Your task to perform on an android device: toggle translation in the chrome app Image 0: 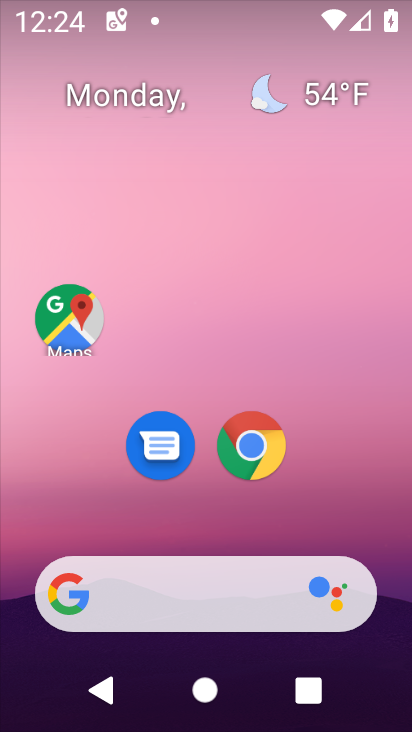
Step 0: drag from (346, 493) to (315, 80)
Your task to perform on an android device: toggle translation in the chrome app Image 1: 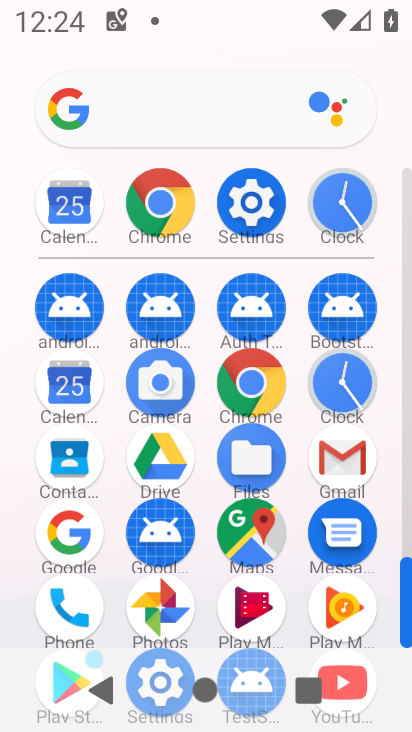
Step 1: click (257, 379)
Your task to perform on an android device: toggle translation in the chrome app Image 2: 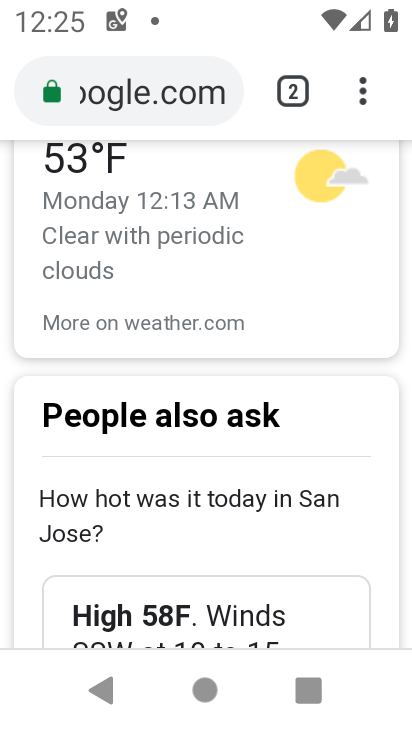
Step 2: drag from (362, 104) to (289, 490)
Your task to perform on an android device: toggle translation in the chrome app Image 3: 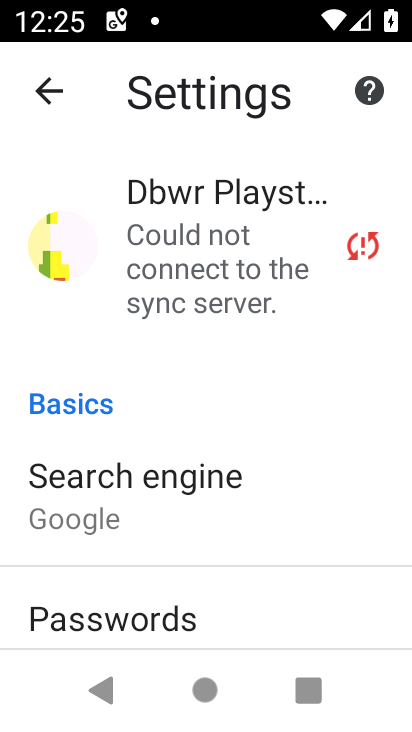
Step 3: drag from (289, 598) to (277, 236)
Your task to perform on an android device: toggle translation in the chrome app Image 4: 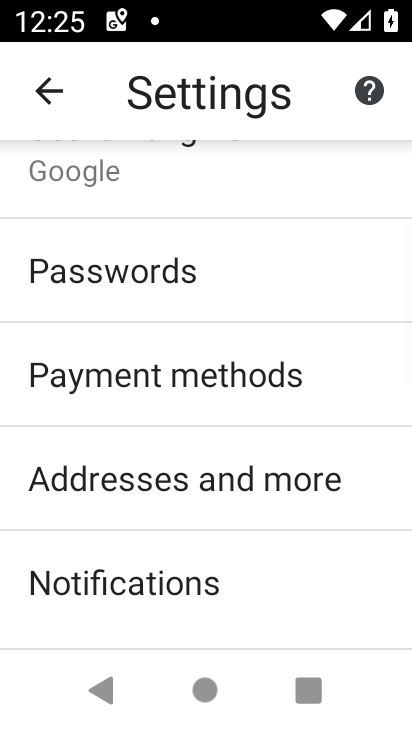
Step 4: click (300, 295)
Your task to perform on an android device: toggle translation in the chrome app Image 5: 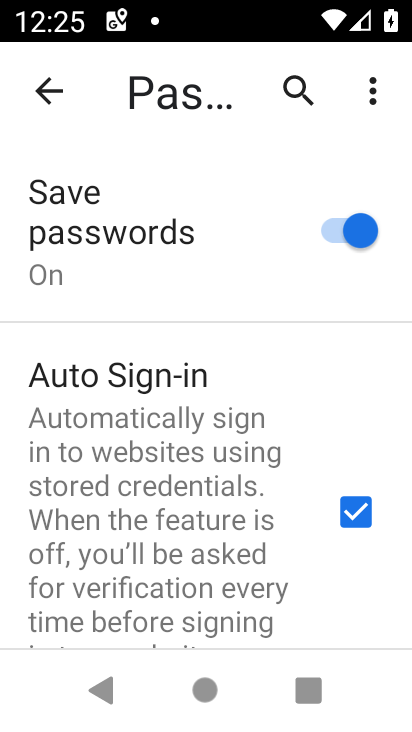
Step 5: click (55, 91)
Your task to perform on an android device: toggle translation in the chrome app Image 6: 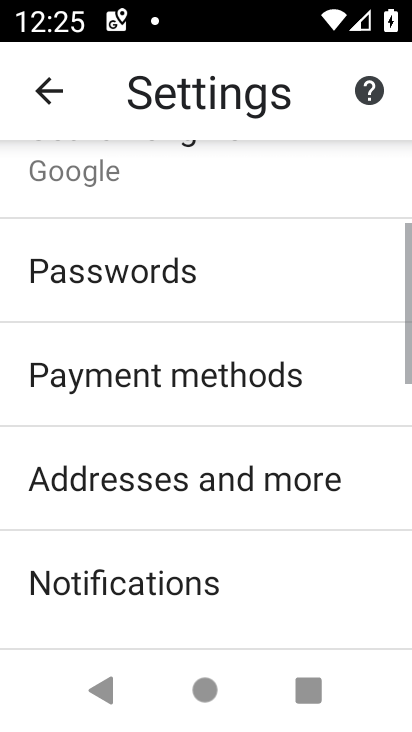
Step 6: drag from (255, 585) to (294, 251)
Your task to perform on an android device: toggle translation in the chrome app Image 7: 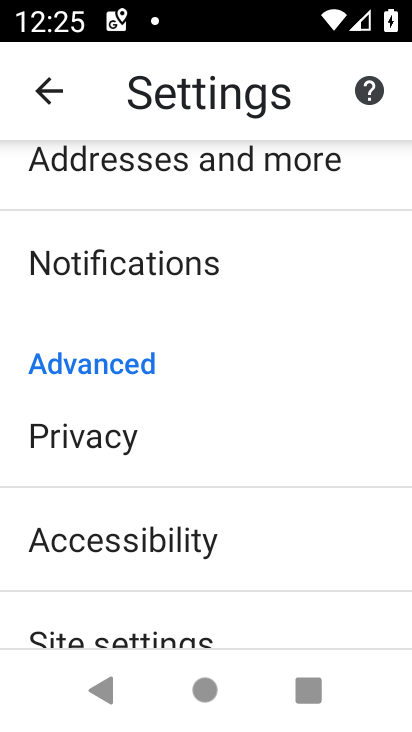
Step 7: drag from (273, 557) to (287, 282)
Your task to perform on an android device: toggle translation in the chrome app Image 8: 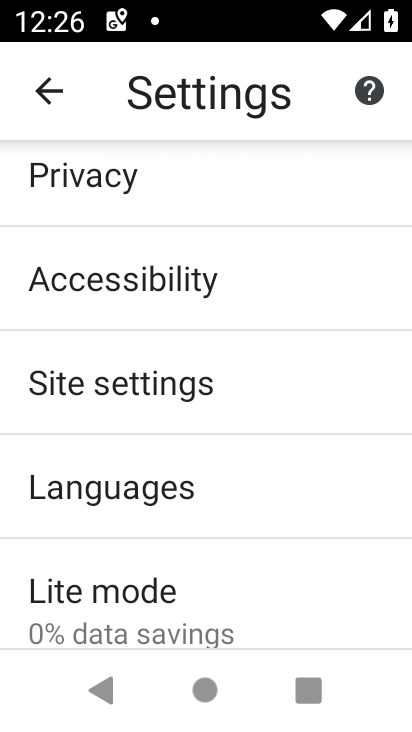
Step 8: click (199, 493)
Your task to perform on an android device: toggle translation in the chrome app Image 9: 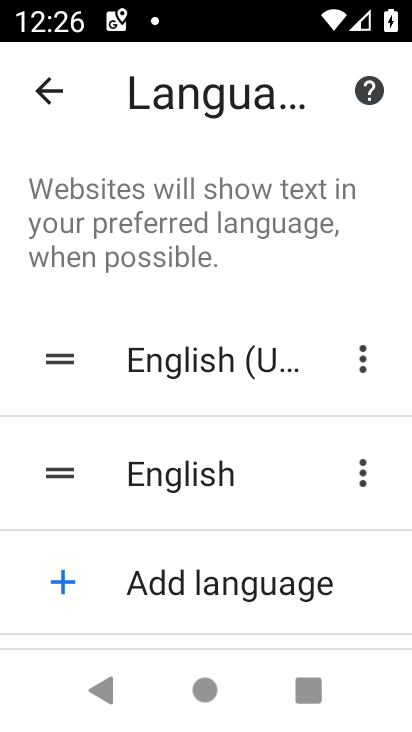
Step 9: drag from (229, 537) to (257, 203)
Your task to perform on an android device: toggle translation in the chrome app Image 10: 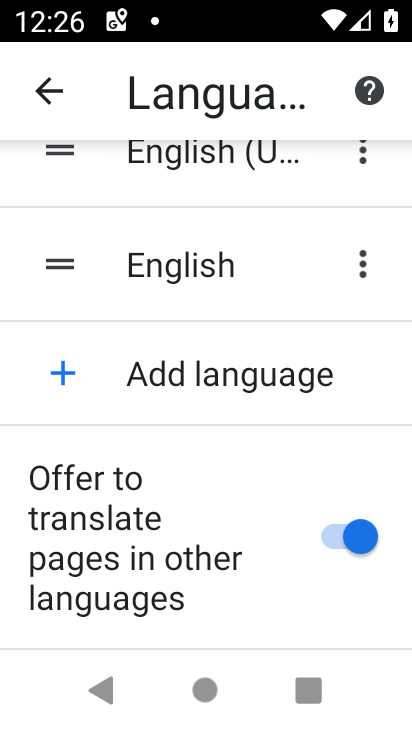
Step 10: click (330, 536)
Your task to perform on an android device: toggle translation in the chrome app Image 11: 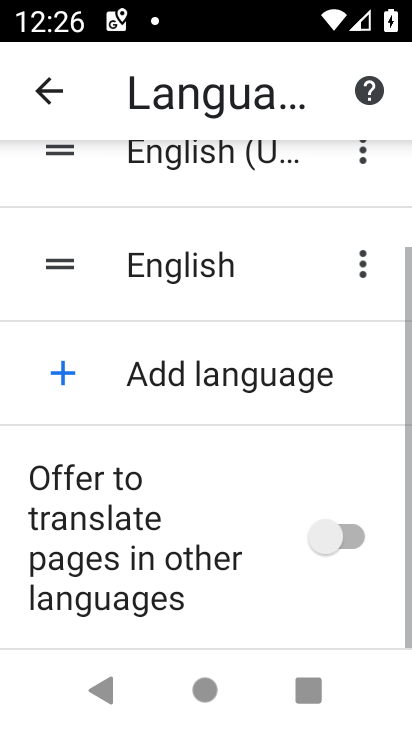
Step 11: task complete